Your task to perform on an android device: Open network settings Image 0: 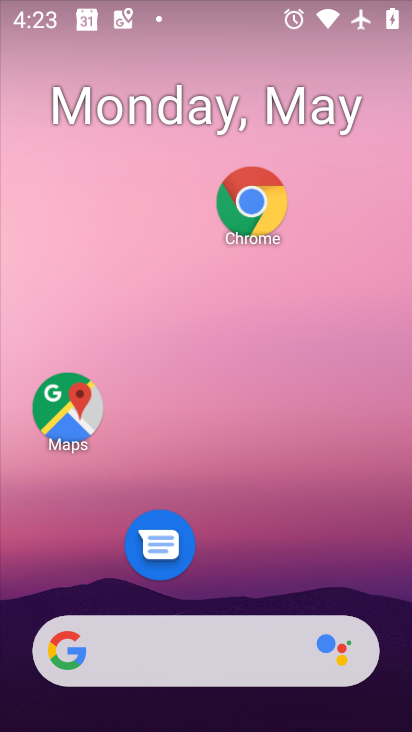
Step 0: drag from (241, 550) to (222, 79)
Your task to perform on an android device: Open network settings Image 1: 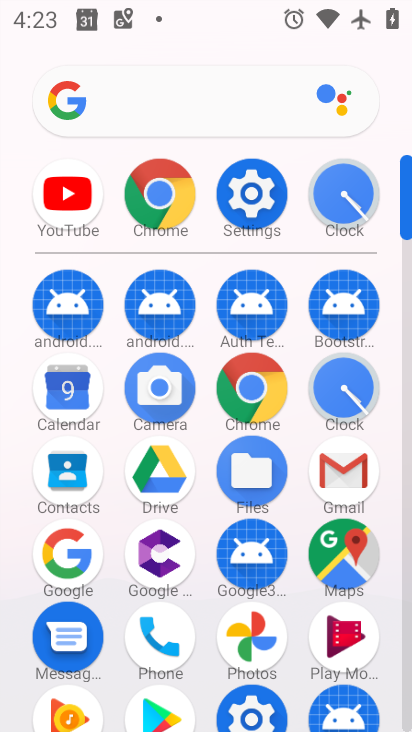
Step 1: click (246, 176)
Your task to perform on an android device: Open network settings Image 2: 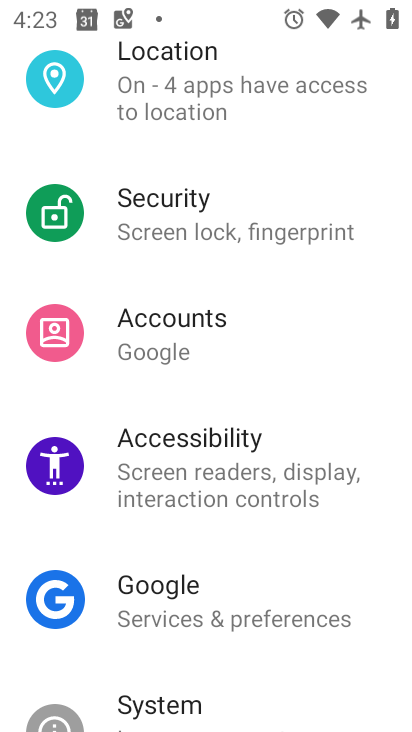
Step 2: drag from (219, 168) to (241, 615)
Your task to perform on an android device: Open network settings Image 3: 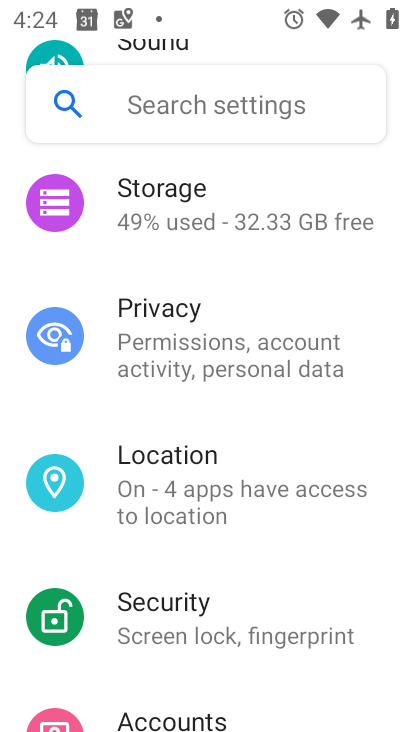
Step 3: drag from (210, 204) to (213, 470)
Your task to perform on an android device: Open network settings Image 4: 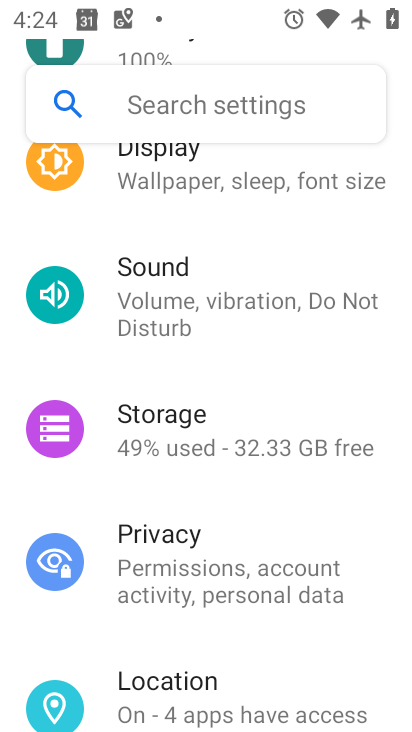
Step 4: drag from (208, 221) to (208, 465)
Your task to perform on an android device: Open network settings Image 5: 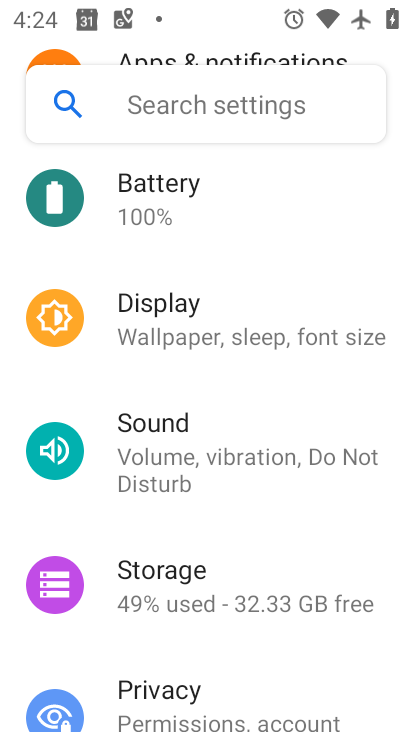
Step 5: drag from (201, 216) to (201, 425)
Your task to perform on an android device: Open network settings Image 6: 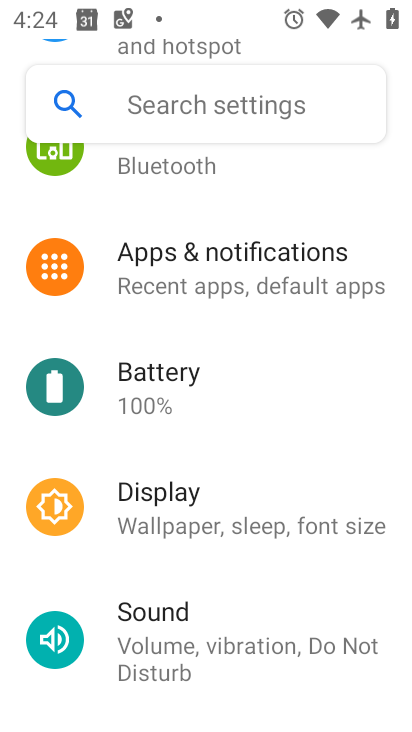
Step 6: drag from (176, 236) to (176, 430)
Your task to perform on an android device: Open network settings Image 7: 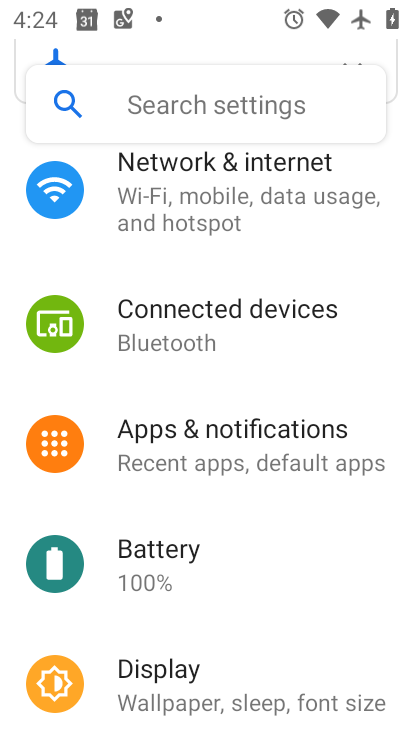
Step 7: click (178, 228)
Your task to perform on an android device: Open network settings Image 8: 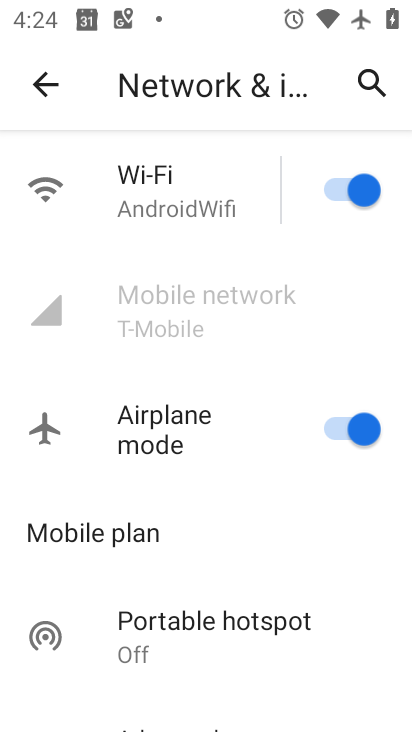
Step 8: click (175, 184)
Your task to perform on an android device: Open network settings Image 9: 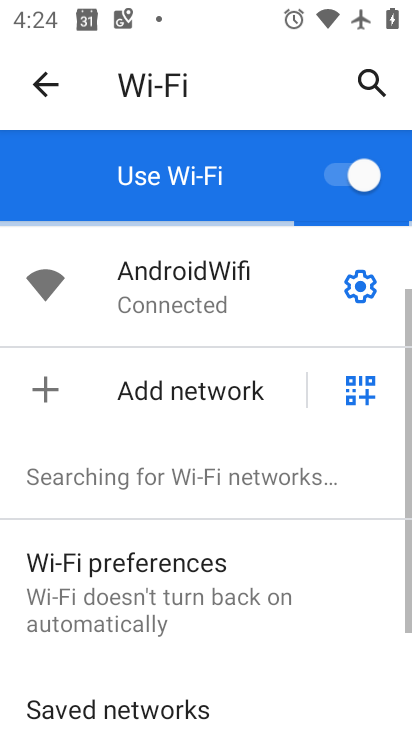
Step 9: click (45, 86)
Your task to perform on an android device: Open network settings Image 10: 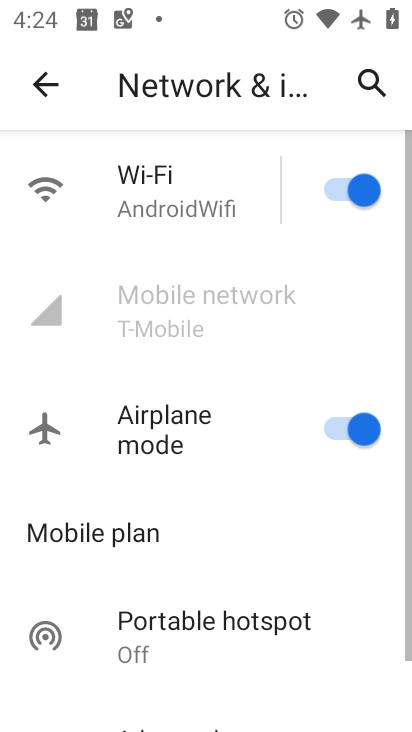
Step 10: click (173, 325)
Your task to perform on an android device: Open network settings Image 11: 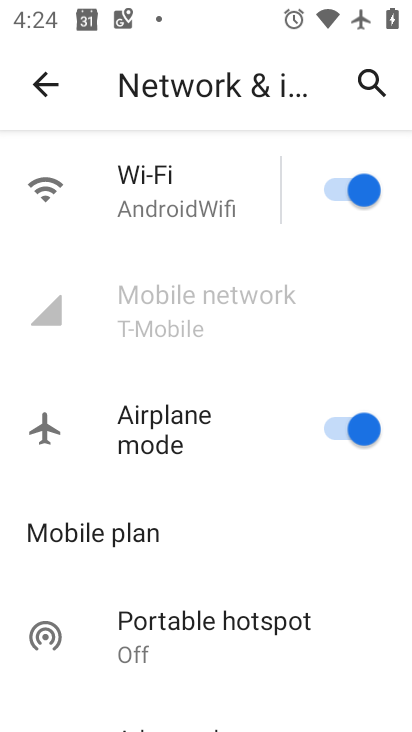
Step 11: task complete